Your task to perform on an android device: Set an alarm for 8pm Image 0: 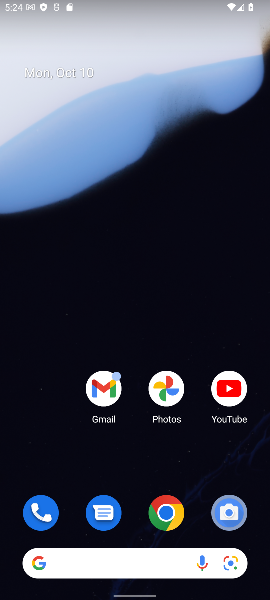
Step 0: drag from (135, 532) to (149, 53)
Your task to perform on an android device: Set an alarm for 8pm Image 1: 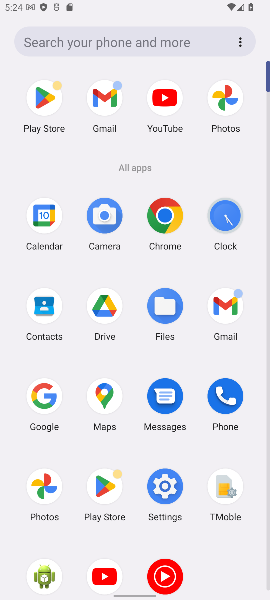
Step 1: click (225, 228)
Your task to perform on an android device: Set an alarm for 8pm Image 2: 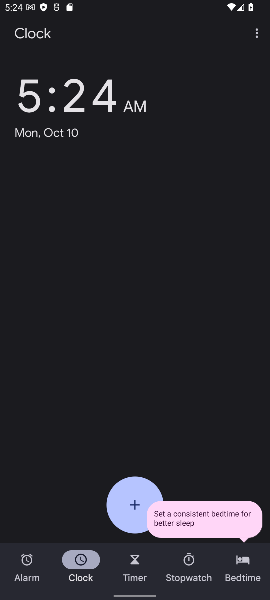
Step 2: click (135, 506)
Your task to perform on an android device: Set an alarm for 8pm Image 3: 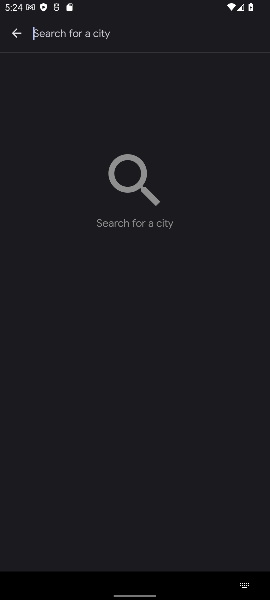
Step 3: click (10, 36)
Your task to perform on an android device: Set an alarm for 8pm Image 4: 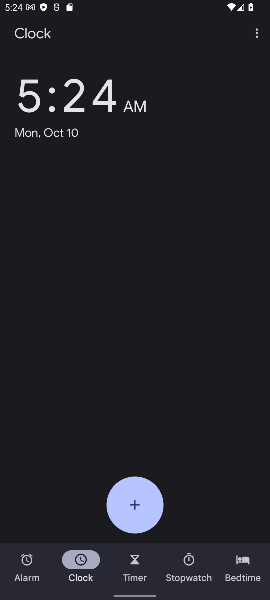
Step 4: click (35, 572)
Your task to perform on an android device: Set an alarm for 8pm Image 5: 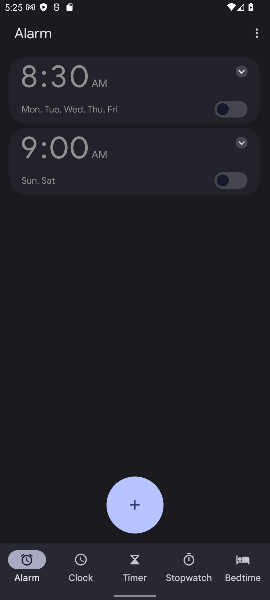
Step 5: click (133, 506)
Your task to perform on an android device: Set an alarm for 8pm Image 6: 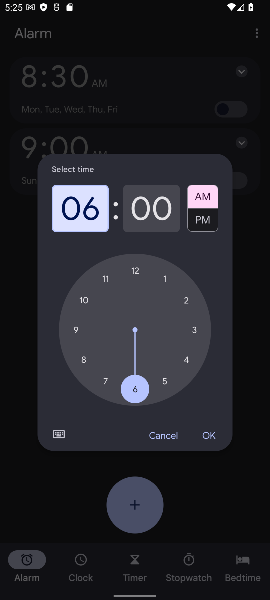
Step 6: click (84, 362)
Your task to perform on an android device: Set an alarm for 8pm Image 7: 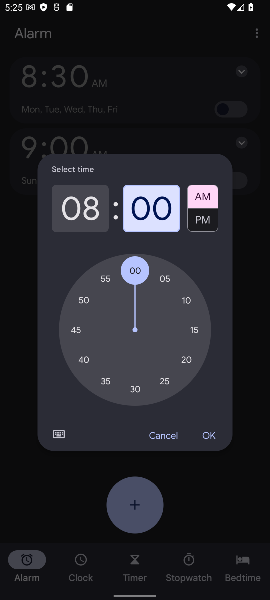
Step 7: click (193, 221)
Your task to perform on an android device: Set an alarm for 8pm Image 8: 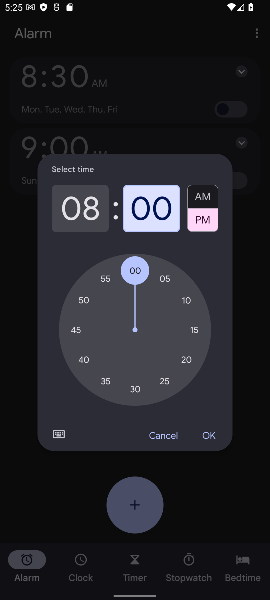
Step 8: click (210, 440)
Your task to perform on an android device: Set an alarm for 8pm Image 9: 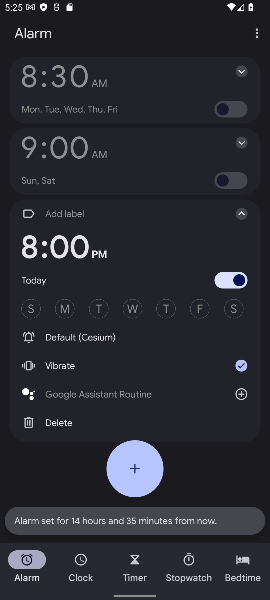
Step 9: task complete